Your task to perform on an android device: What's the weather going to be tomorrow? Image 0: 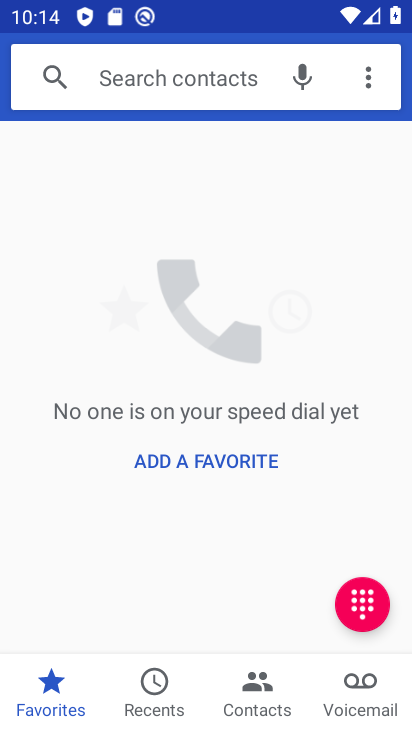
Step 0: press home button
Your task to perform on an android device: What's the weather going to be tomorrow? Image 1: 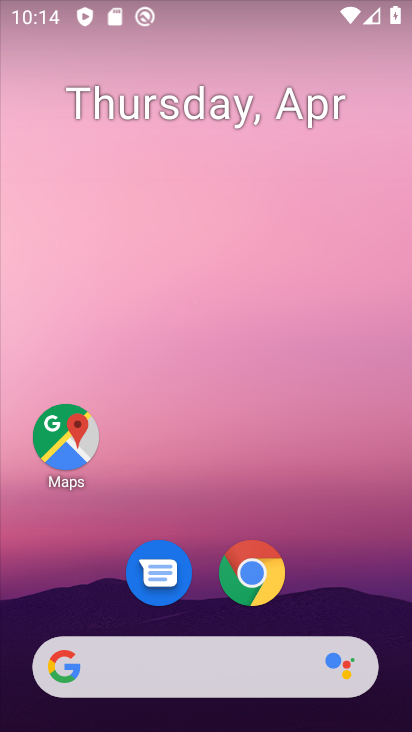
Step 1: click (259, 566)
Your task to perform on an android device: What's the weather going to be tomorrow? Image 2: 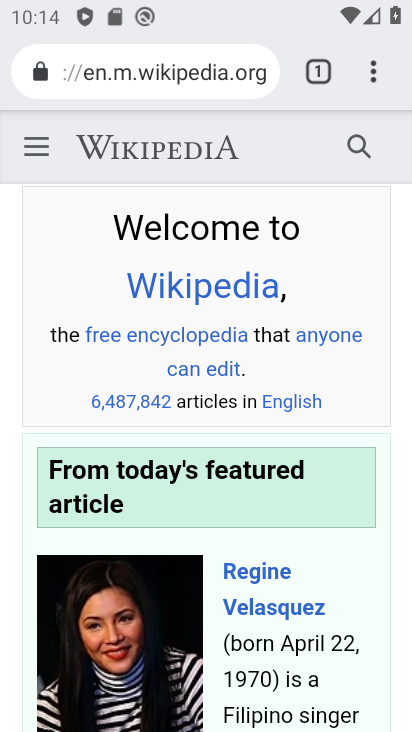
Step 2: click (184, 56)
Your task to perform on an android device: What's the weather going to be tomorrow? Image 3: 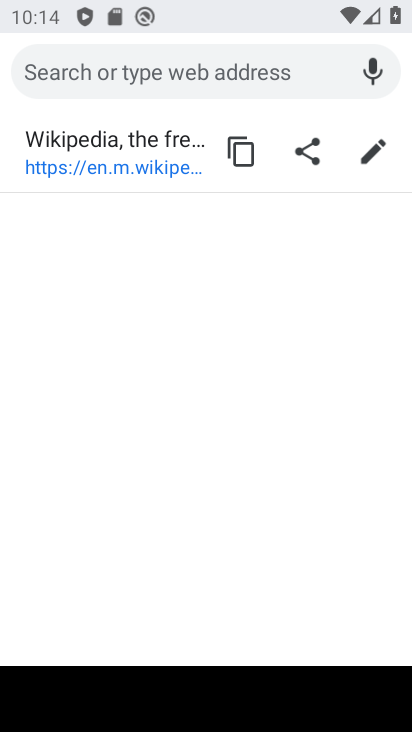
Step 3: type "What's the weather going to be tomorrow?"
Your task to perform on an android device: What's the weather going to be tomorrow? Image 4: 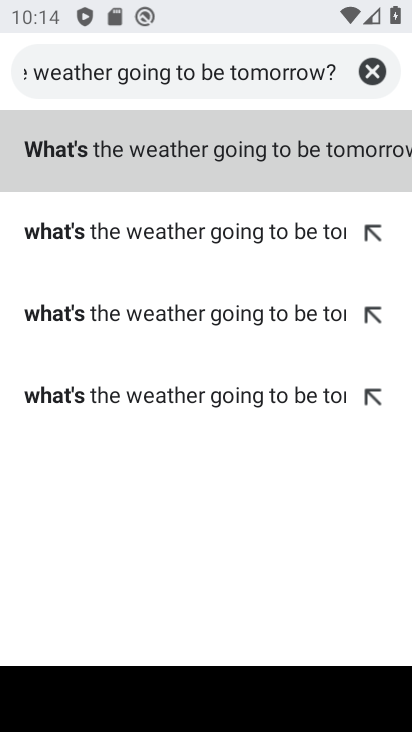
Step 4: press enter
Your task to perform on an android device: What's the weather going to be tomorrow? Image 5: 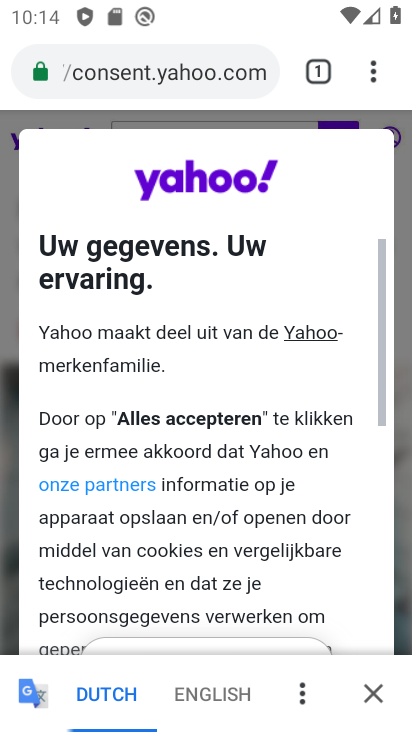
Step 5: drag from (383, 407) to (330, 724)
Your task to perform on an android device: What's the weather going to be tomorrow? Image 6: 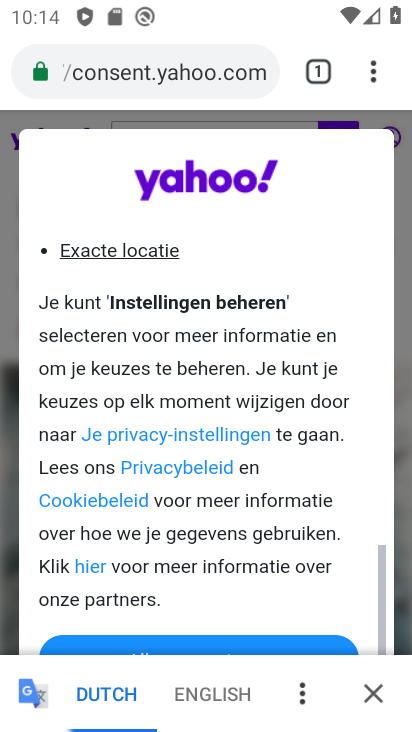
Step 6: click (281, 643)
Your task to perform on an android device: What's the weather going to be tomorrow? Image 7: 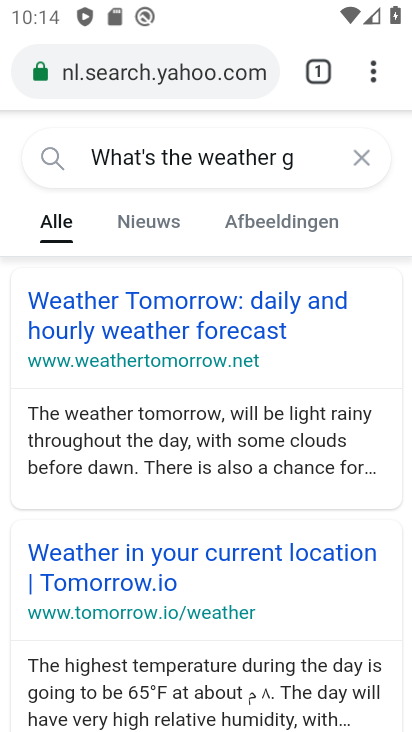
Step 7: click (240, 324)
Your task to perform on an android device: What's the weather going to be tomorrow? Image 8: 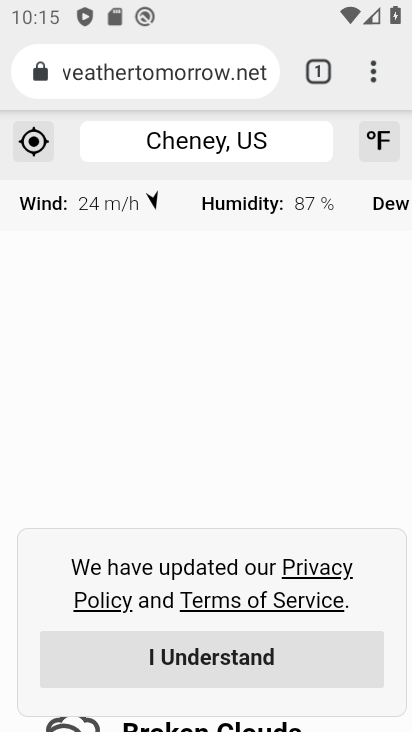
Step 8: task complete